Your task to perform on an android device: remove spam from my inbox in the gmail app Image 0: 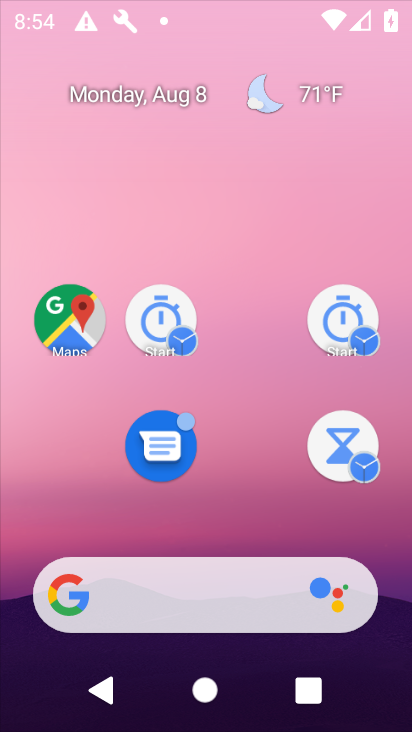
Step 0: drag from (174, 576) to (232, 274)
Your task to perform on an android device: remove spam from my inbox in the gmail app Image 1: 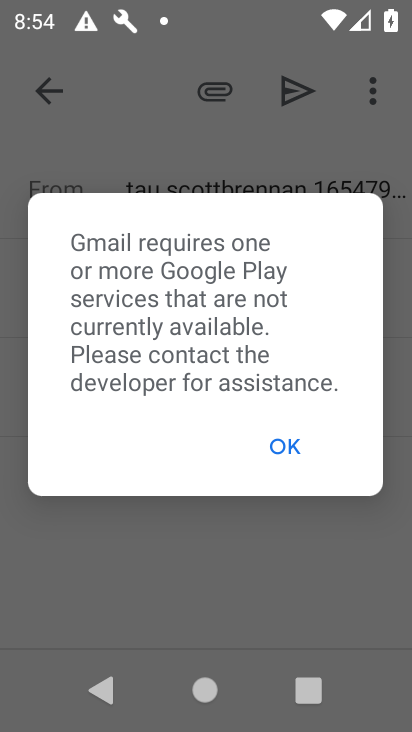
Step 1: click (277, 443)
Your task to perform on an android device: remove spam from my inbox in the gmail app Image 2: 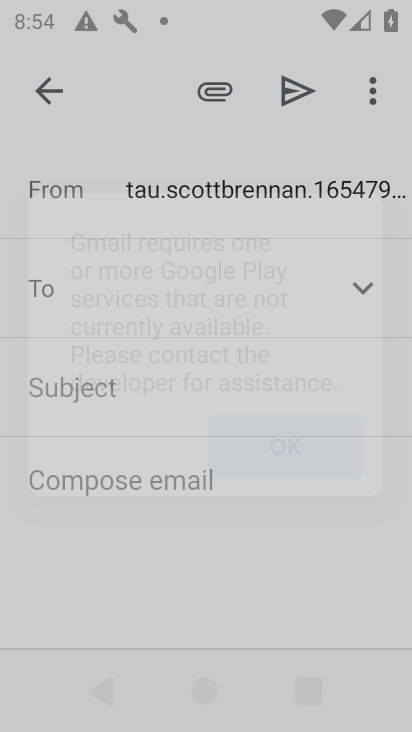
Step 2: click (277, 445)
Your task to perform on an android device: remove spam from my inbox in the gmail app Image 3: 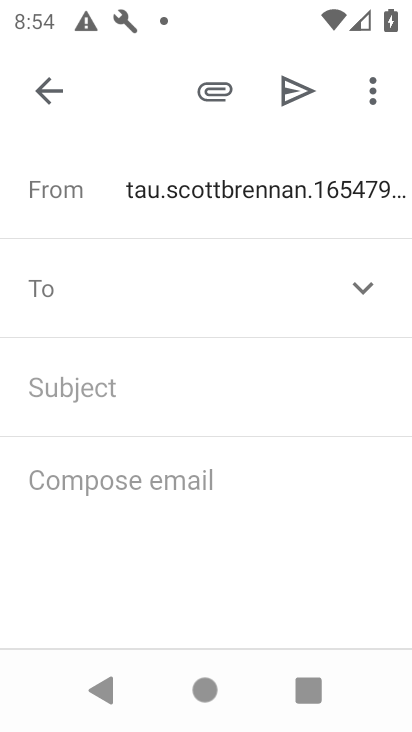
Step 3: click (56, 80)
Your task to perform on an android device: remove spam from my inbox in the gmail app Image 4: 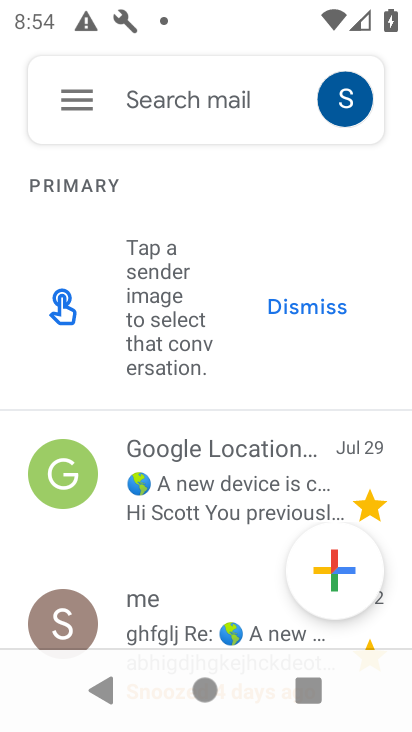
Step 4: click (84, 99)
Your task to perform on an android device: remove spam from my inbox in the gmail app Image 5: 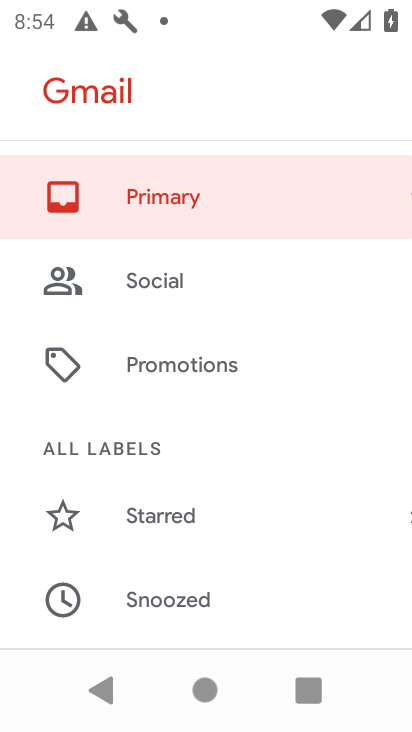
Step 5: drag from (165, 540) to (175, 217)
Your task to perform on an android device: remove spam from my inbox in the gmail app Image 6: 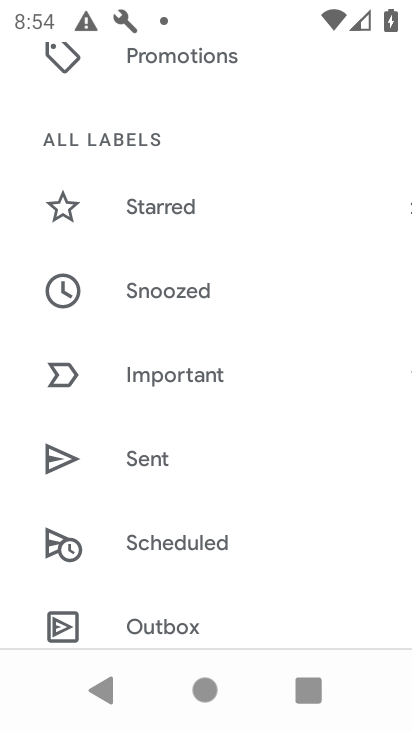
Step 6: drag from (183, 482) to (194, 223)
Your task to perform on an android device: remove spam from my inbox in the gmail app Image 7: 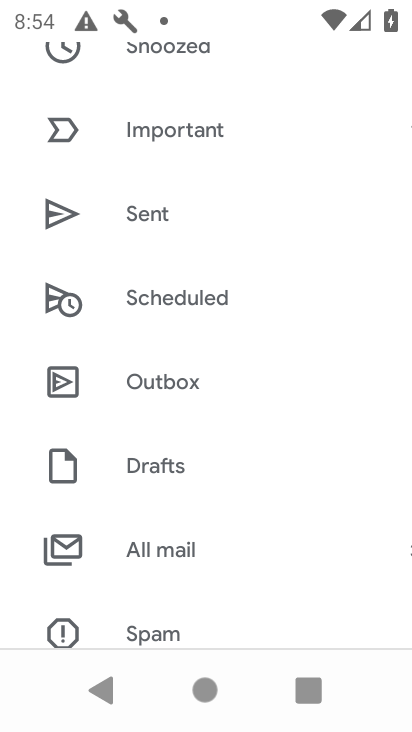
Step 7: click (148, 633)
Your task to perform on an android device: remove spam from my inbox in the gmail app Image 8: 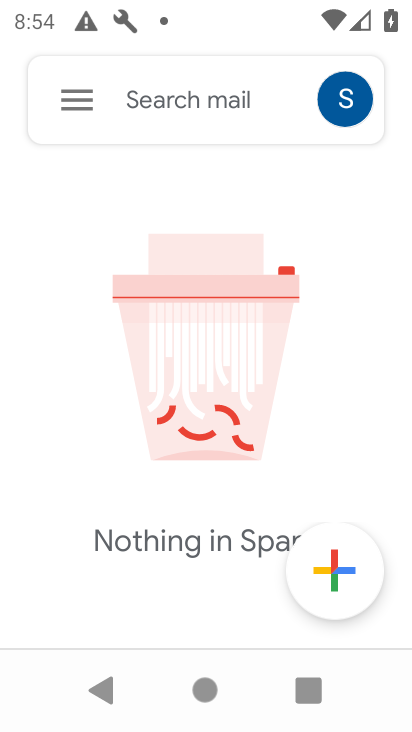
Step 8: task complete